Your task to perform on an android device: Open Wikipedia Image 0: 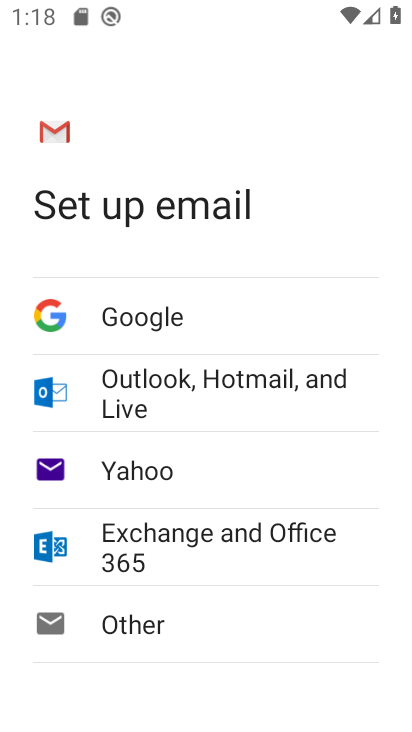
Step 0: press home button
Your task to perform on an android device: Open Wikipedia Image 1: 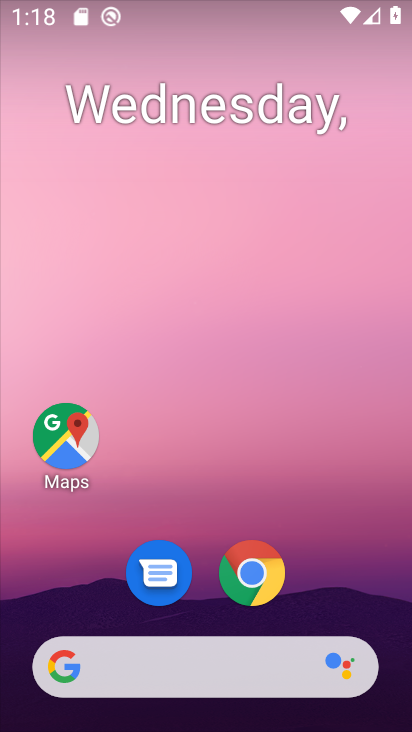
Step 1: click (254, 573)
Your task to perform on an android device: Open Wikipedia Image 2: 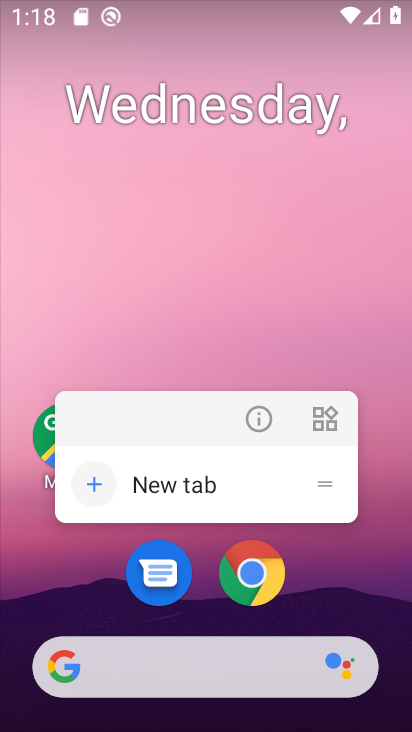
Step 2: click (254, 573)
Your task to perform on an android device: Open Wikipedia Image 3: 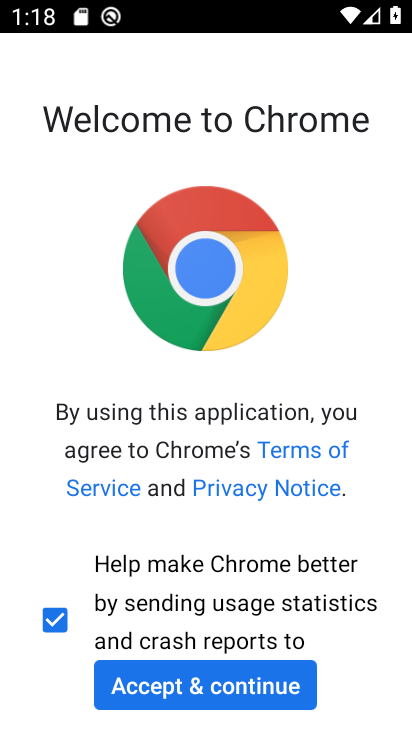
Step 3: click (231, 683)
Your task to perform on an android device: Open Wikipedia Image 4: 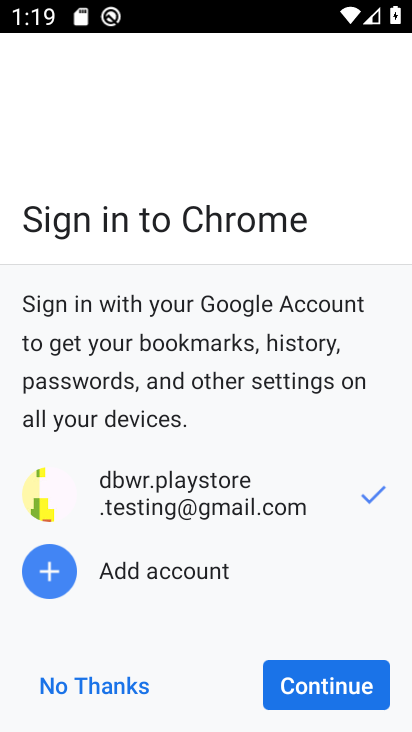
Step 4: click (310, 683)
Your task to perform on an android device: Open Wikipedia Image 5: 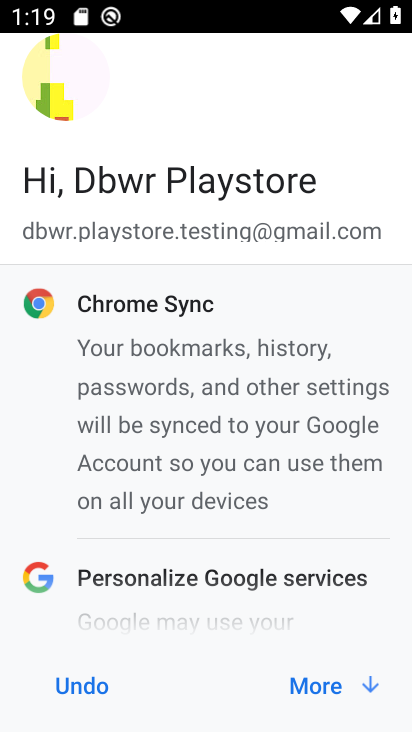
Step 5: click (310, 683)
Your task to perform on an android device: Open Wikipedia Image 6: 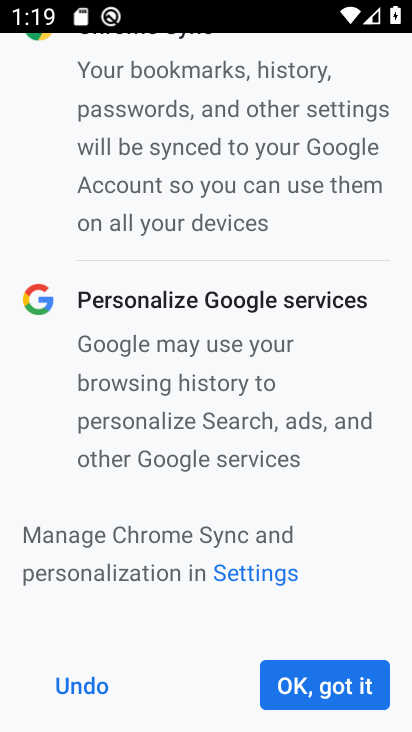
Step 6: click (310, 683)
Your task to perform on an android device: Open Wikipedia Image 7: 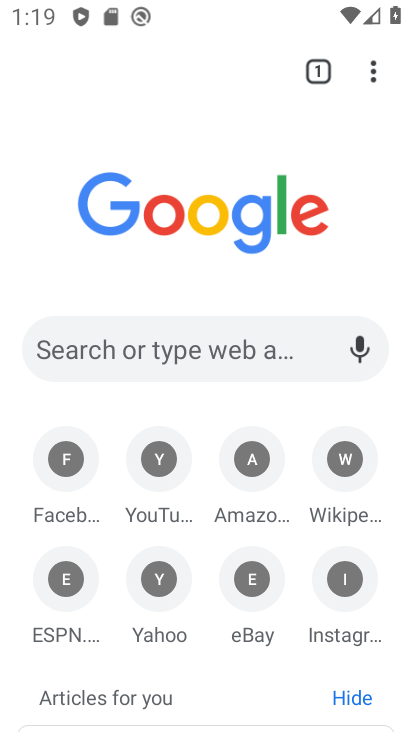
Step 7: click (353, 461)
Your task to perform on an android device: Open Wikipedia Image 8: 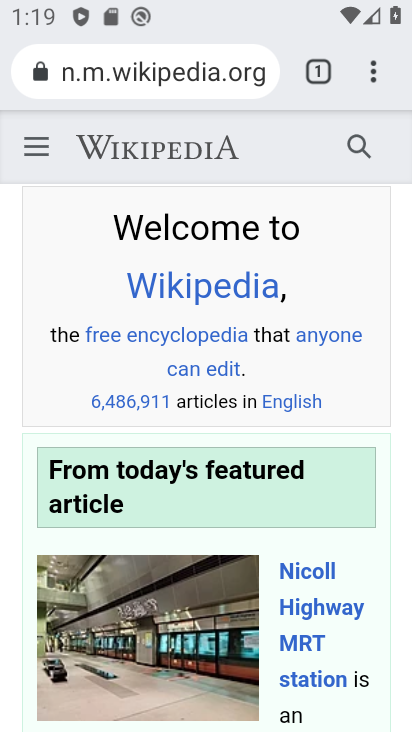
Step 8: task complete